Your task to perform on an android device: set default search engine in the chrome app Image 0: 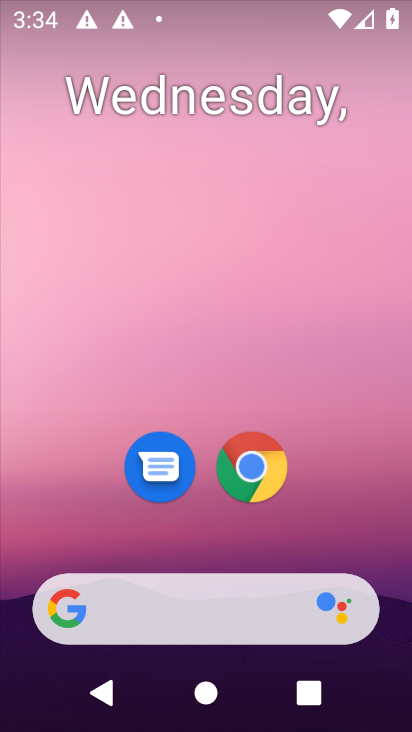
Step 0: click (233, 467)
Your task to perform on an android device: set default search engine in the chrome app Image 1: 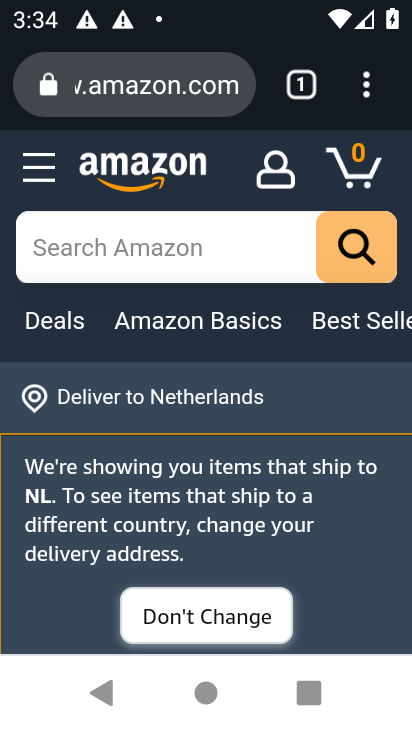
Step 1: click (363, 91)
Your task to perform on an android device: set default search engine in the chrome app Image 2: 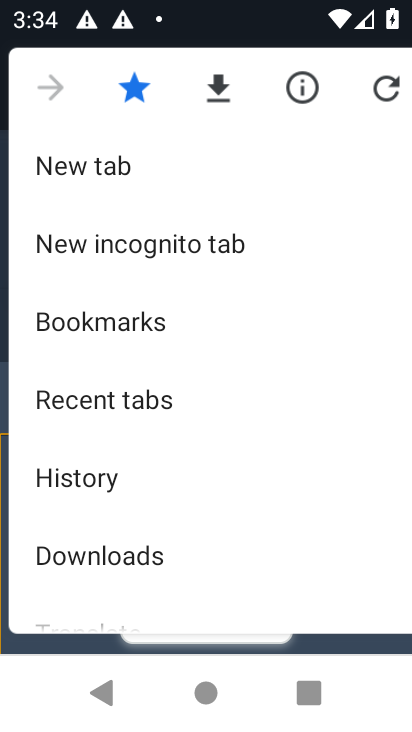
Step 2: drag from (213, 553) to (154, 211)
Your task to perform on an android device: set default search engine in the chrome app Image 3: 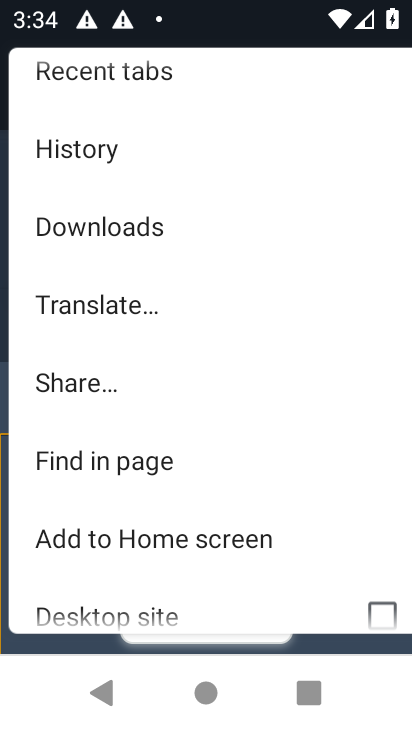
Step 3: drag from (321, 458) to (313, 361)
Your task to perform on an android device: set default search engine in the chrome app Image 4: 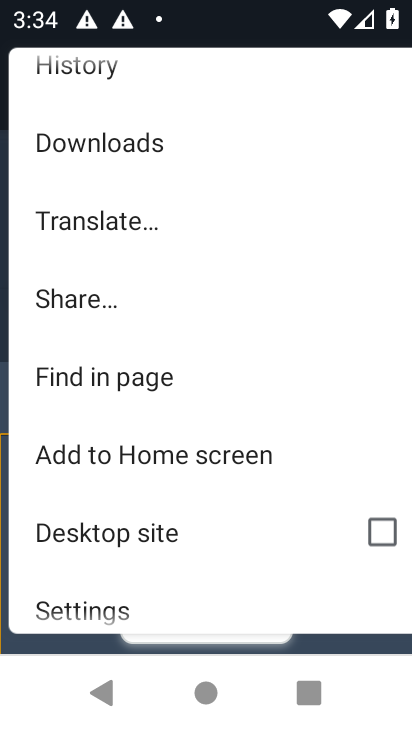
Step 4: click (63, 613)
Your task to perform on an android device: set default search engine in the chrome app Image 5: 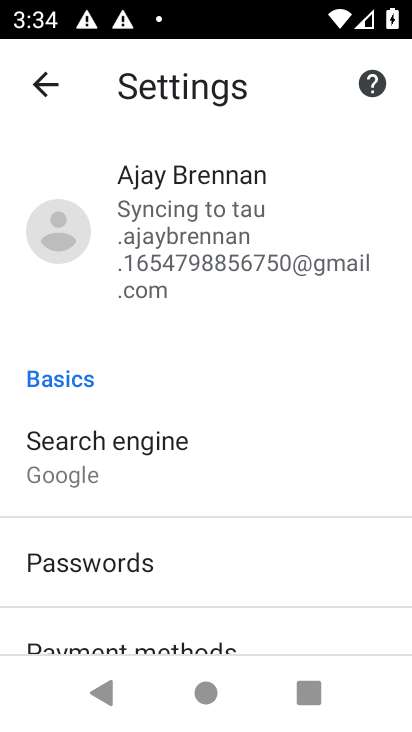
Step 5: click (86, 463)
Your task to perform on an android device: set default search engine in the chrome app Image 6: 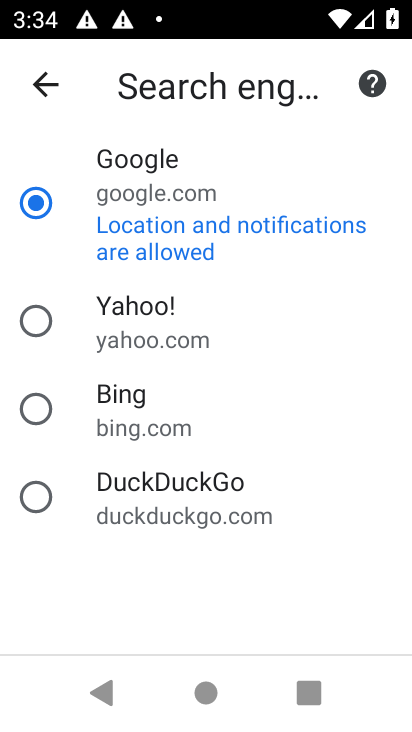
Step 6: task complete